Your task to perform on an android device: snooze an email in the gmail app Image 0: 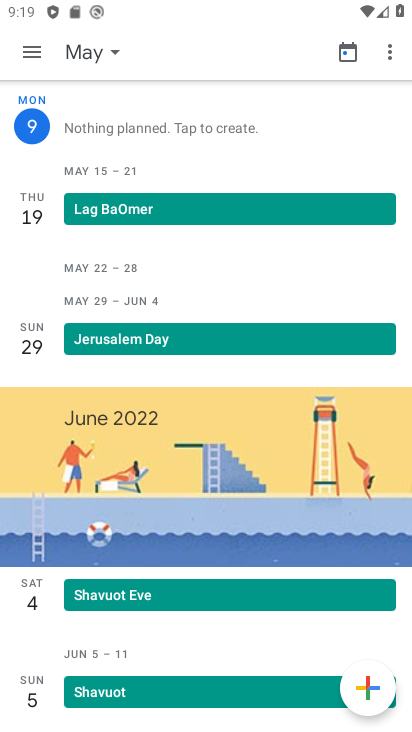
Step 0: press home button
Your task to perform on an android device: snooze an email in the gmail app Image 1: 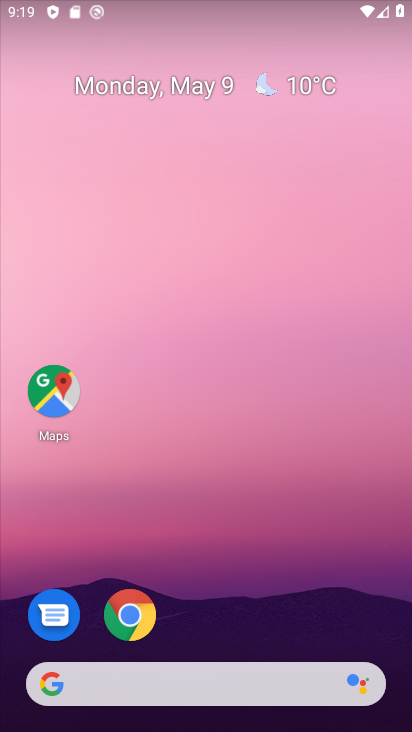
Step 1: drag from (181, 433) to (189, 48)
Your task to perform on an android device: snooze an email in the gmail app Image 2: 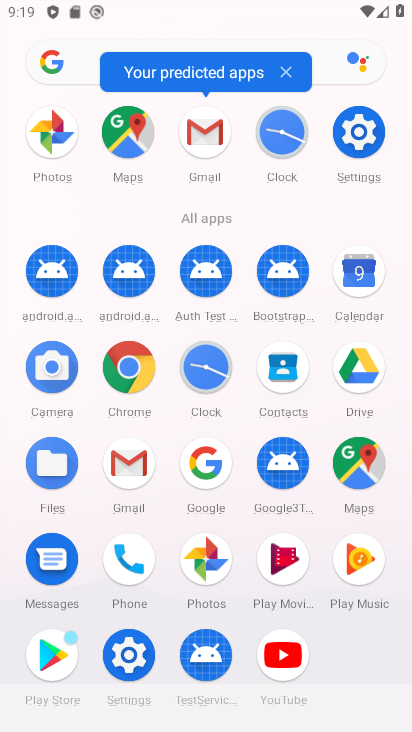
Step 2: click (190, 143)
Your task to perform on an android device: snooze an email in the gmail app Image 3: 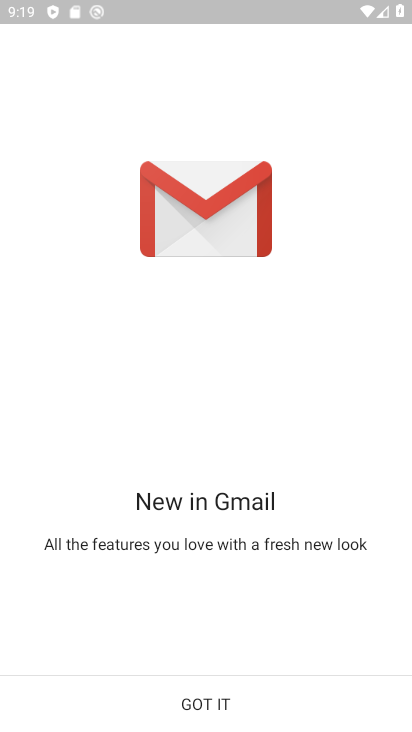
Step 3: click (201, 712)
Your task to perform on an android device: snooze an email in the gmail app Image 4: 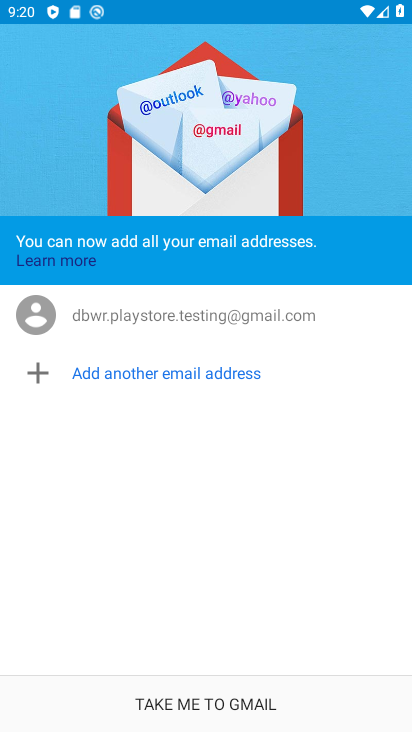
Step 4: click (201, 712)
Your task to perform on an android device: snooze an email in the gmail app Image 5: 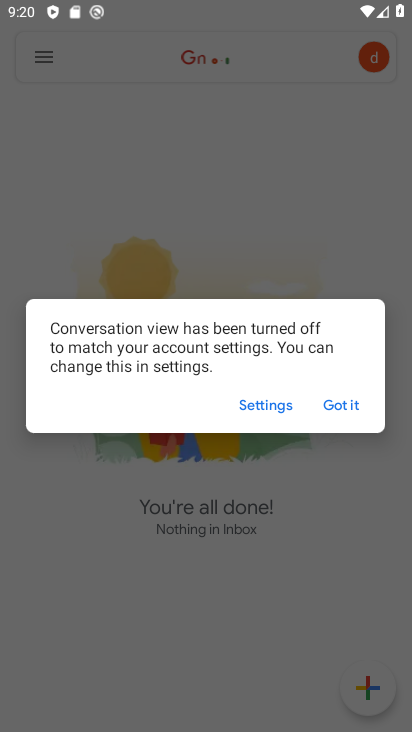
Step 5: click (341, 410)
Your task to perform on an android device: snooze an email in the gmail app Image 6: 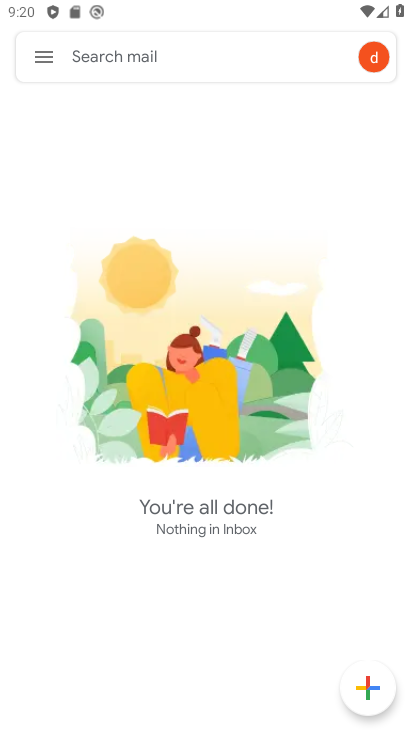
Step 6: task complete